Your task to perform on an android device: delete the emails in spam in the gmail app Image 0: 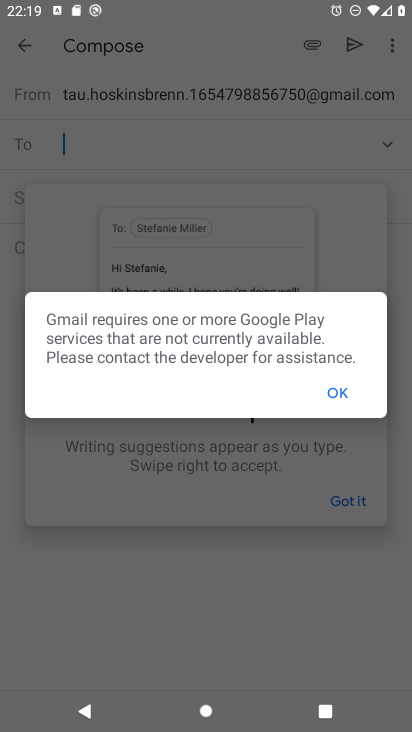
Step 0: press home button
Your task to perform on an android device: delete the emails in spam in the gmail app Image 1: 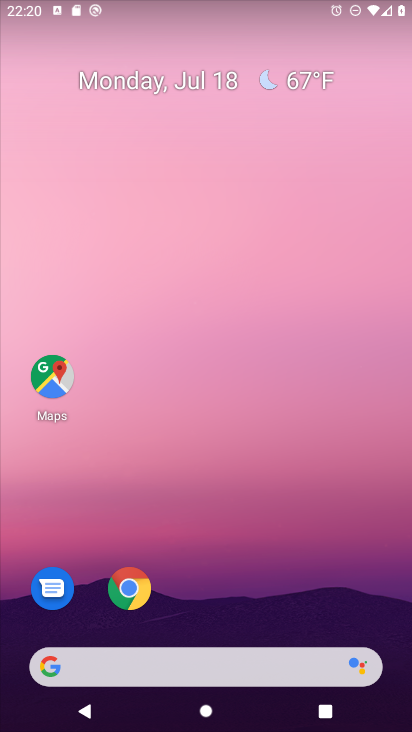
Step 1: drag from (385, 621) to (332, 219)
Your task to perform on an android device: delete the emails in spam in the gmail app Image 2: 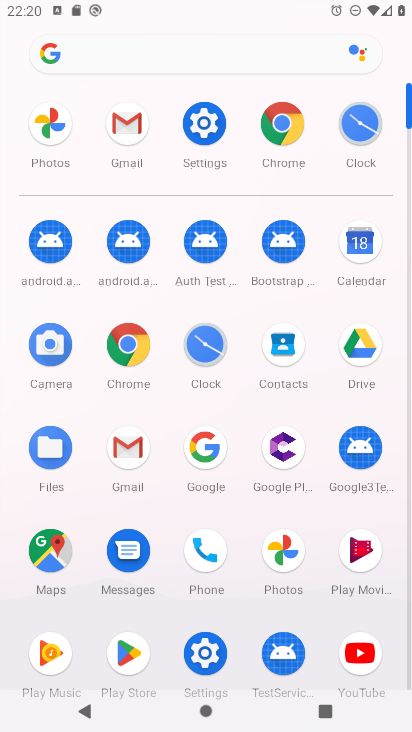
Step 2: click (122, 444)
Your task to perform on an android device: delete the emails in spam in the gmail app Image 3: 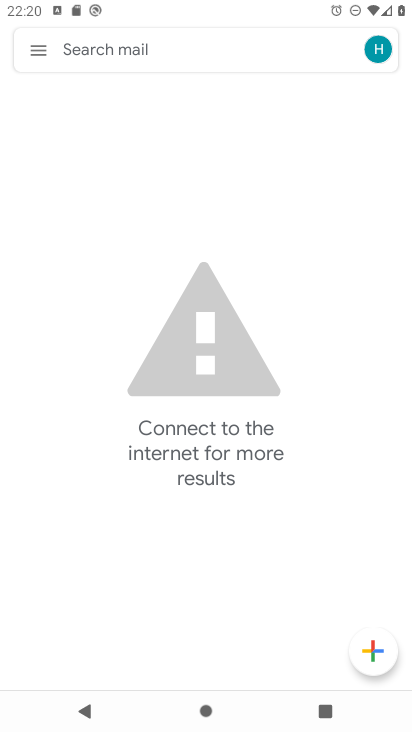
Step 3: click (38, 50)
Your task to perform on an android device: delete the emails in spam in the gmail app Image 4: 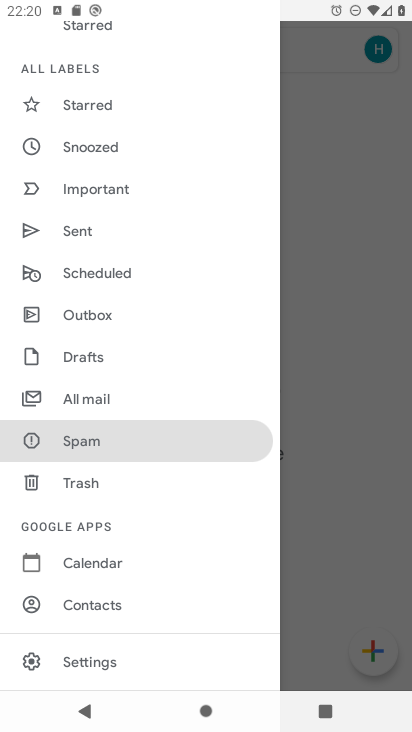
Step 4: click (87, 443)
Your task to perform on an android device: delete the emails in spam in the gmail app Image 5: 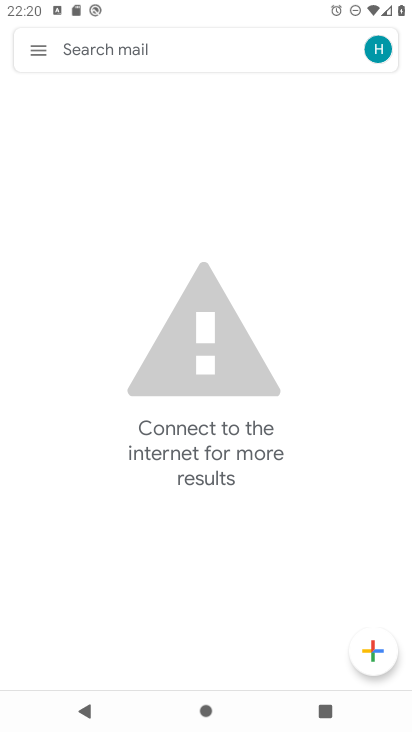
Step 5: task complete